Your task to perform on an android device: add a label to a message in the gmail app Image 0: 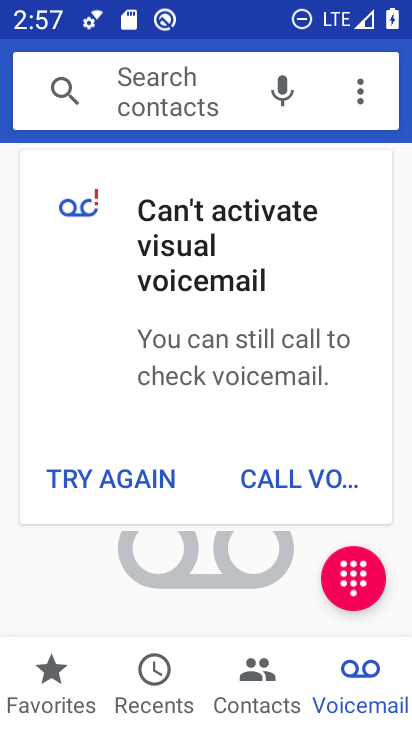
Step 0: press home button
Your task to perform on an android device: add a label to a message in the gmail app Image 1: 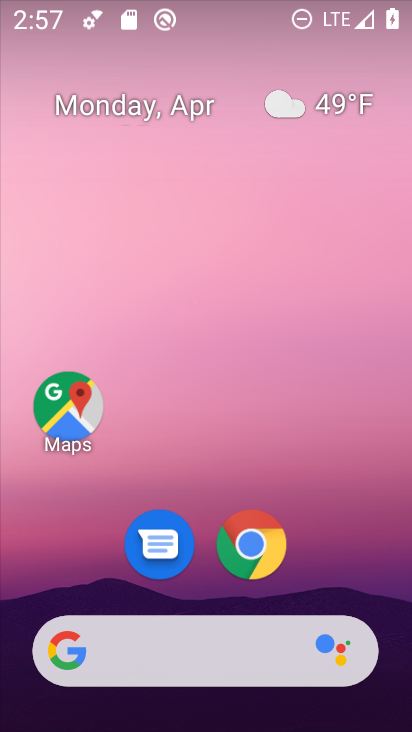
Step 1: drag from (349, 544) to (243, 49)
Your task to perform on an android device: add a label to a message in the gmail app Image 2: 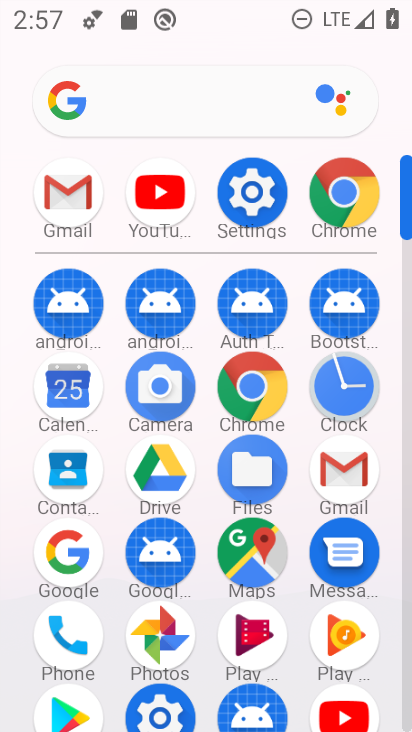
Step 2: click (340, 470)
Your task to perform on an android device: add a label to a message in the gmail app Image 3: 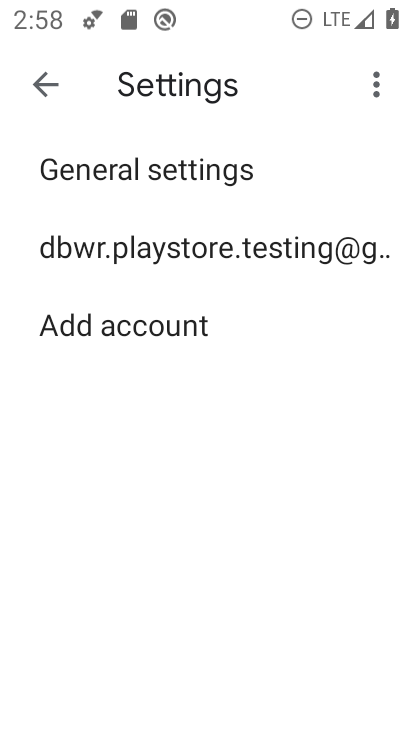
Step 3: click (52, 82)
Your task to perform on an android device: add a label to a message in the gmail app Image 4: 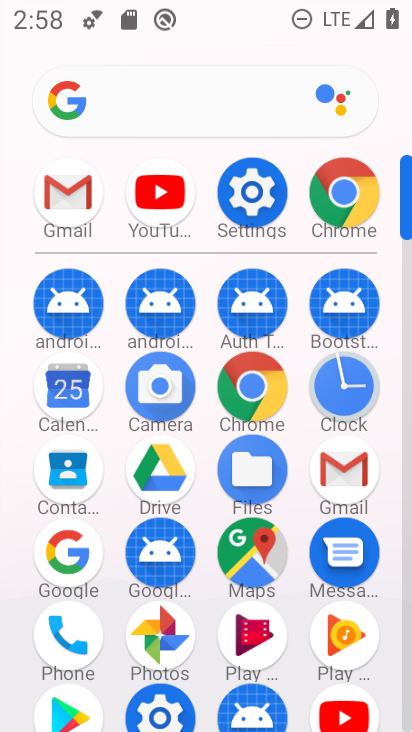
Step 4: click (345, 464)
Your task to perform on an android device: add a label to a message in the gmail app Image 5: 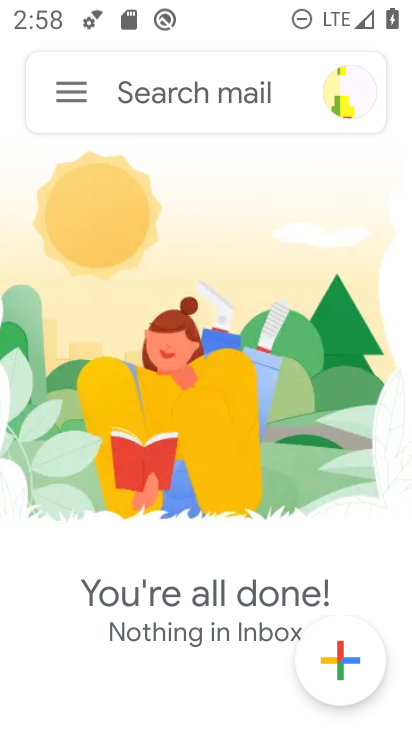
Step 5: click (67, 97)
Your task to perform on an android device: add a label to a message in the gmail app Image 6: 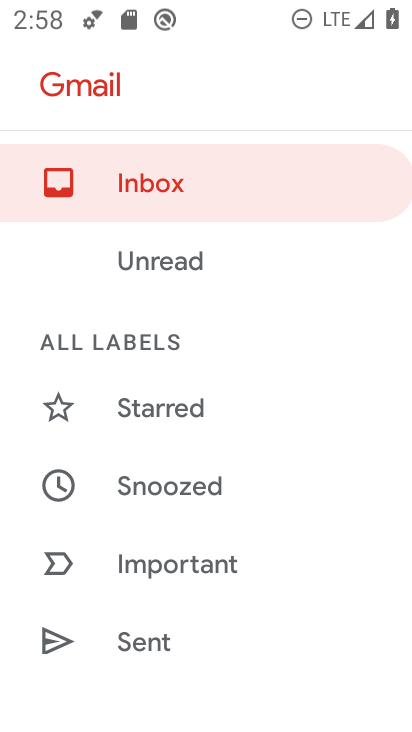
Step 6: task complete